Your task to perform on an android device: turn pop-ups on in chrome Image 0: 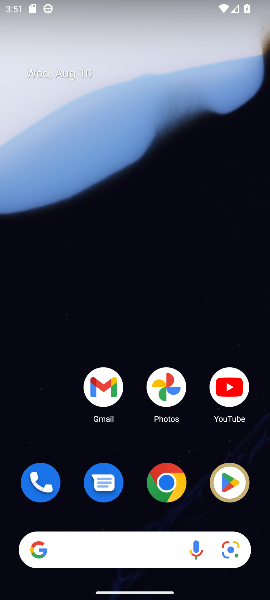
Step 0: drag from (132, 493) to (170, 54)
Your task to perform on an android device: turn pop-ups on in chrome Image 1: 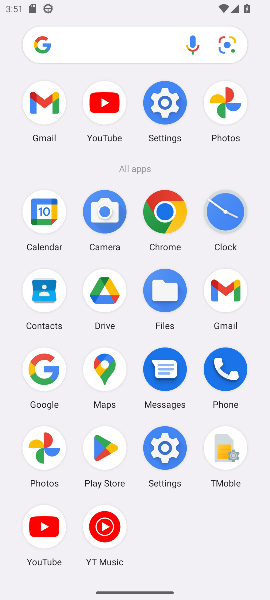
Step 1: click (168, 212)
Your task to perform on an android device: turn pop-ups on in chrome Image 2: 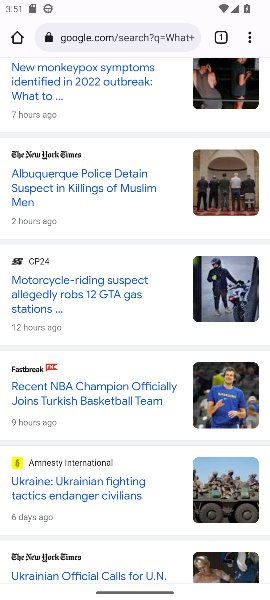
Step 2: drag from (246, 38) to (137, 472)
Your task to perform on an android device: turn pop-ups on in chrome Image 3: 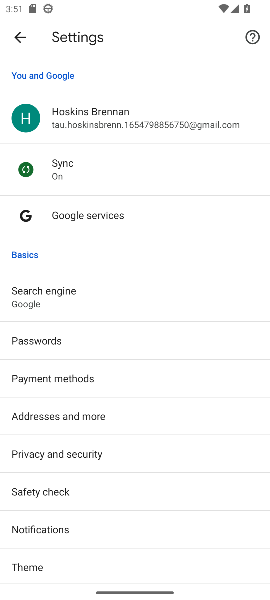
Step 3: drag from (128, 495) to (169, 215)
Your task to perform on an android device: turn pop-ups on in chrome Image 4: 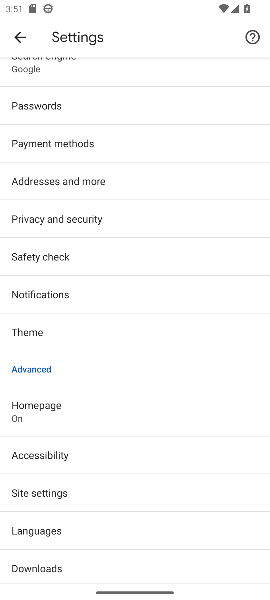
Step 4: drag from (108, 509) to (145, 274)
Your task to perform on an android device: turn pop-ups on in chrome Image 5: 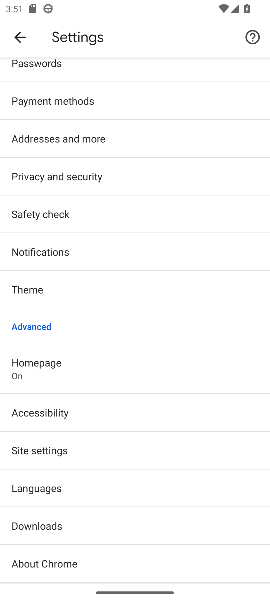
Step 5: click (44, 446)
Your task to perform on an android device: turn pop-ups on in chrome Image 6: 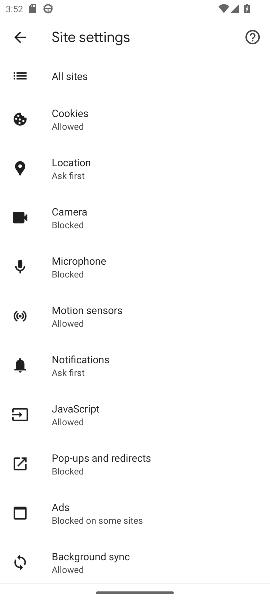
Step 6: click (61, 457)
Your task to perform on an android device: turn pop-ups on in chrome Image 7: 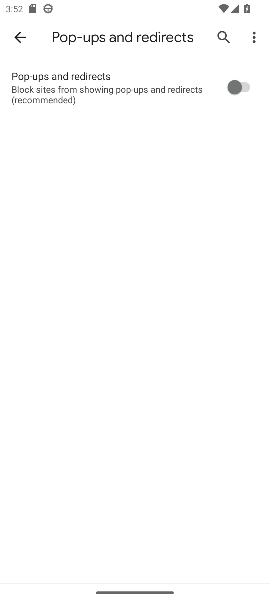
Step 7: click (168, 95)
Your task to perform on an android device: turn pop-ups on in chrome Image 8: 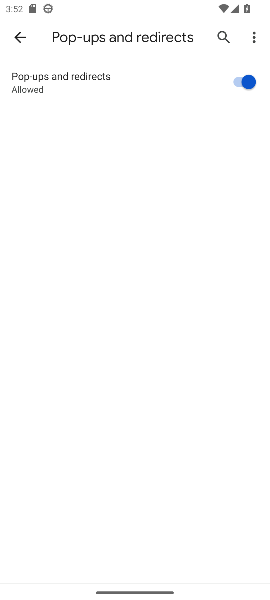
Step 8: task complete